Your task to perform on an android device: Search for vegetarian restaurants on Maps Image 0: 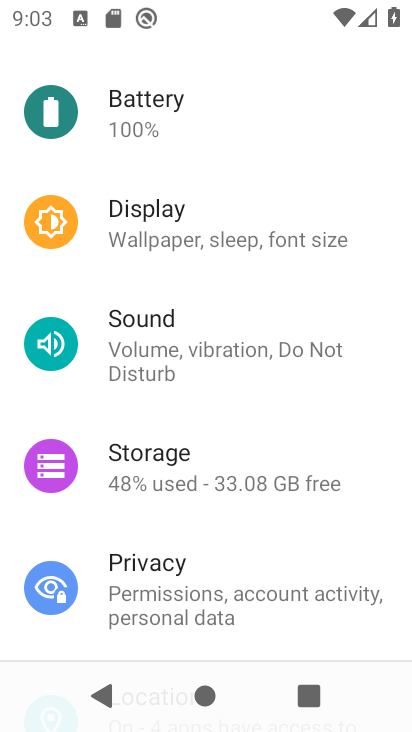
Step 0: press home button
Your task to perform on an android device: Search for vegetarian restaurants on Maps Image 1: 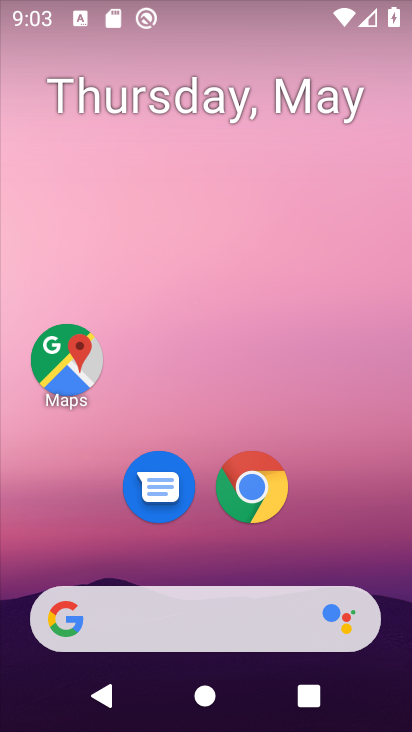
Step 1: click (49, 369)
Your task to perform on an android device: Search for vegetarian restaurants on Maps Image 2: 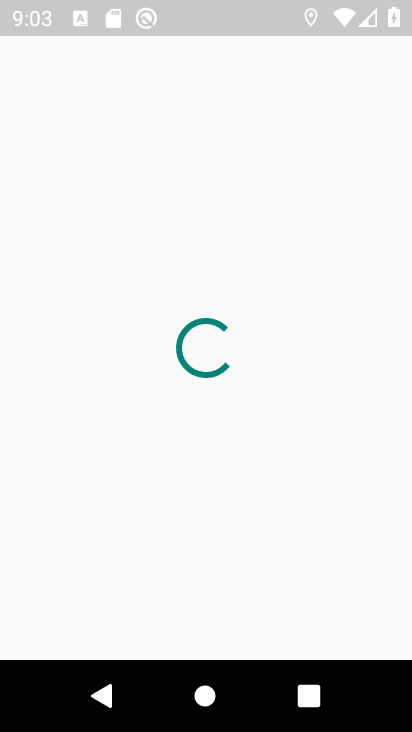
Step 2: click (143, 60)
Your task to perform on an android device: Search for vegetarian restaurants on Maps Image 3: 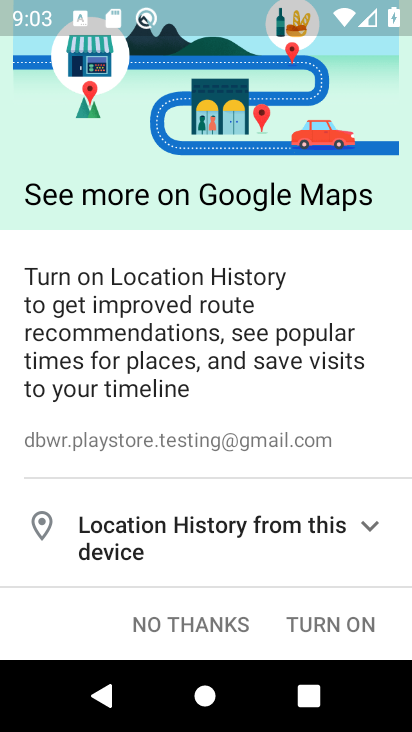
Step 3: click (185, 611)
Your task to perform on an android device: Search for vegetarian restaurants on Maps Image 4: 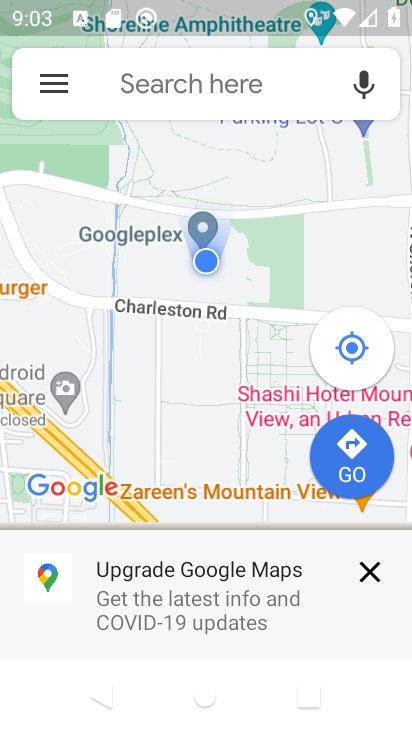
Step 4: click (170, 63)
Your task to perform on an android device: Search for vegetarian restaurants on Maps Image 5: 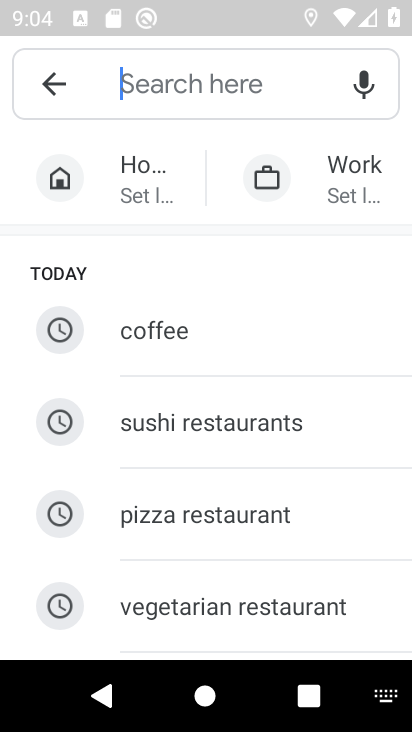
Step 5: click (231, 603)
Your task to perform on an android device: Search for vegetarian restaurants on Maps Image 6: 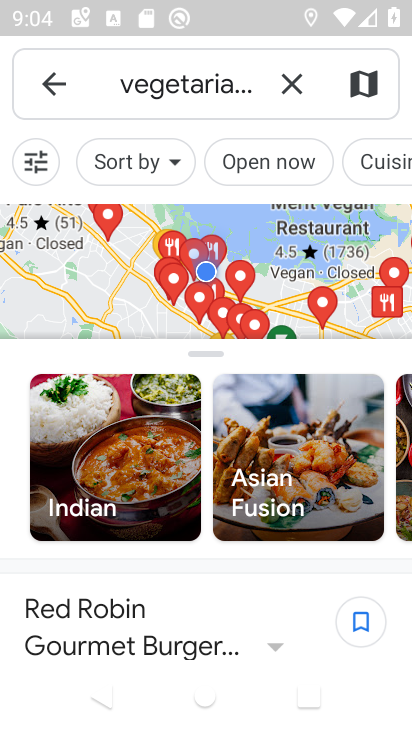
Step 6: task complete